Your task to perform on an android device: What's the weather today? Image 0: 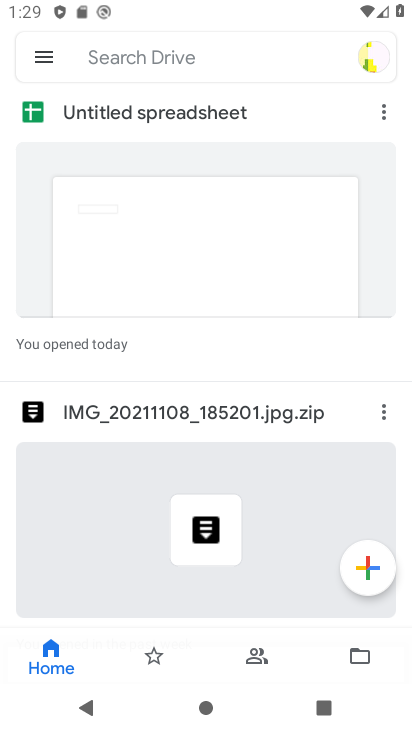
Step 0: press home button
Your task to perform on an android device: What's the weather today? Image 1: 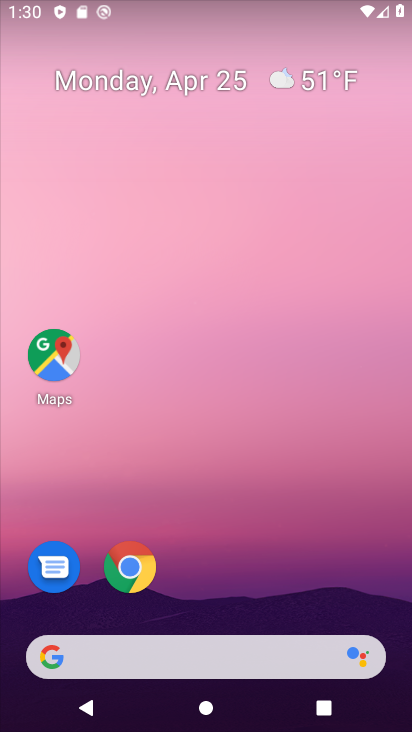
Step 1: drag from (291, 592) to (222, 466)
Your task to perform on an android device: What's the weather today? Image 2: 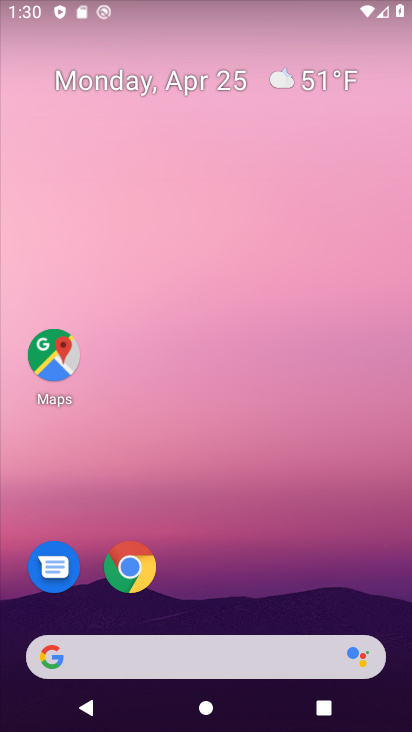
Step 2: click (311, 89)
Your task to perform on an android device: What's the weather today? Image 3: 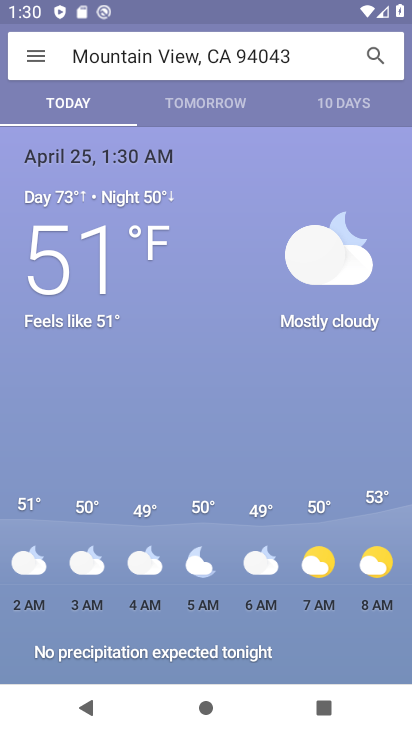
Step 3: task complete